Your task to perform on an android device: Show me popular videos on Youtube Image 0: 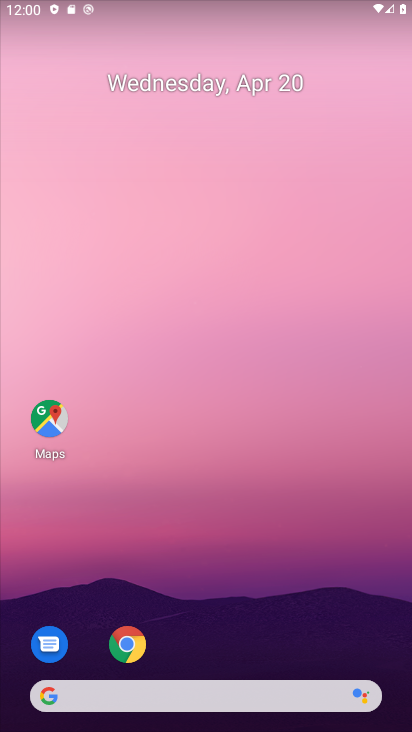
Step 0: drag from (310, 604) to (336, 5)
Your task to perform on an android device: Show me popular videos on Youtube Image 1: 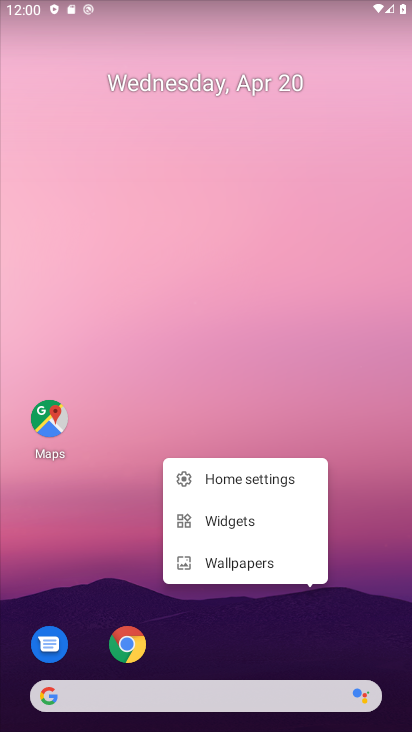
Step 1: drag from (319, 622) to (402, 25)
Your task to perform on an android device: Show me popular videos on Youtube Image 2: 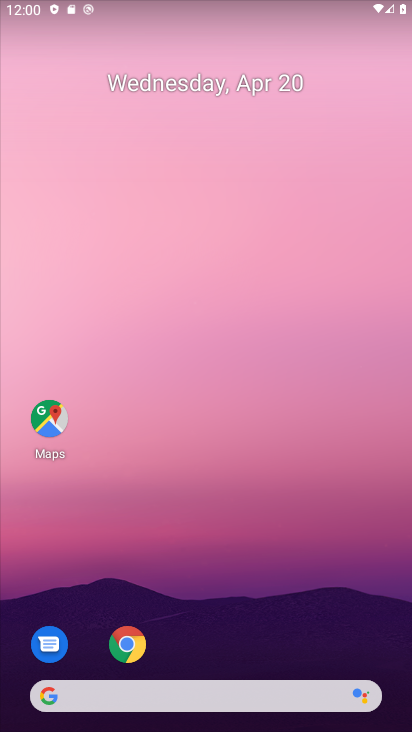
Step 2: drag from (214, 630) to (254, 109)
Your task to perform on an android device: Show me popular videos on Youtube Image 3: 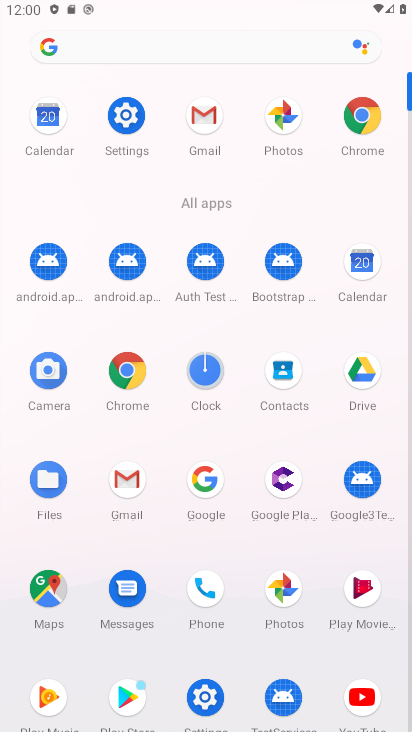
Step 3: click (356, 694)
Your task to perform on an android device: Show me popular videos on Youtube Image 4: 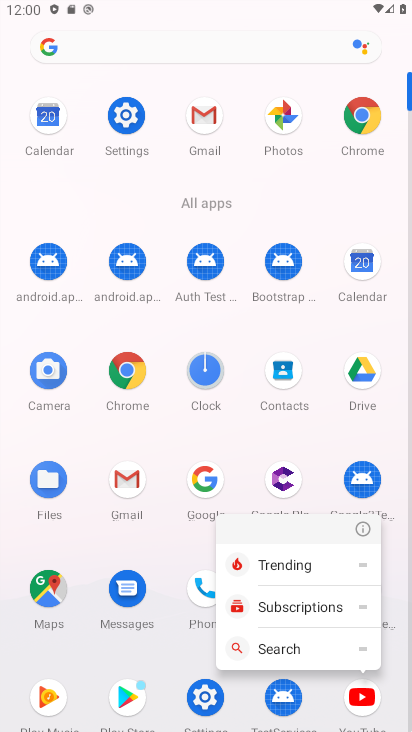
Step 4: click (368, 694)
Your task to perform on an android device: Show me popular videos on Youtube Image 5: 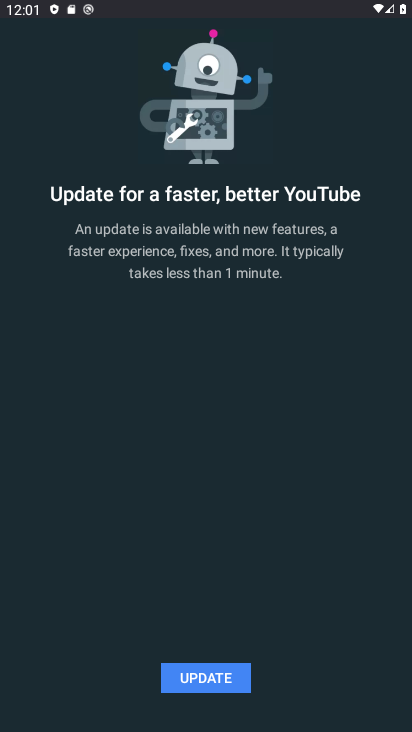
Step 5: click (243, 674)
Your task to perform on an android device: Show me popular videos on Youtube Image 6: 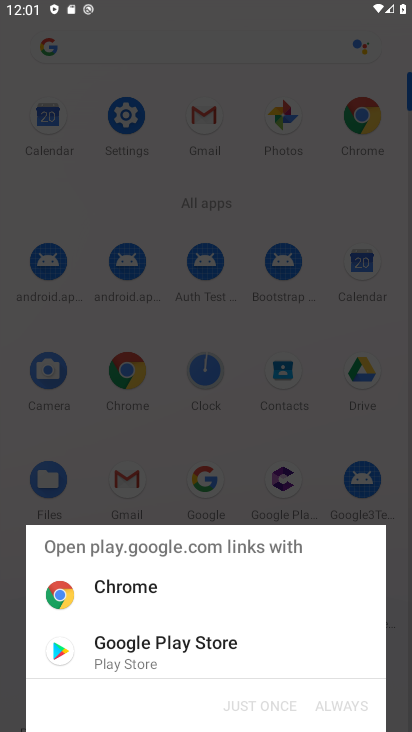
Step 6: click (241, 644)
Your task to perform on an android device: Show me popular videos on Youtube Image 7: 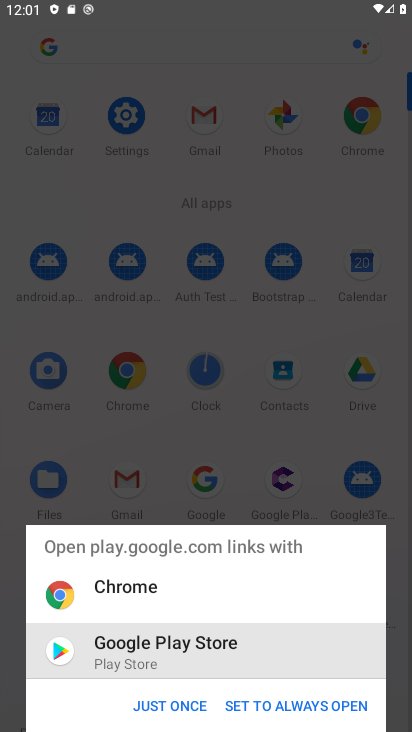
Step 7: click (170, 698)
Your task to perform on an android device: Show me popular videos on Youtube Image 8: 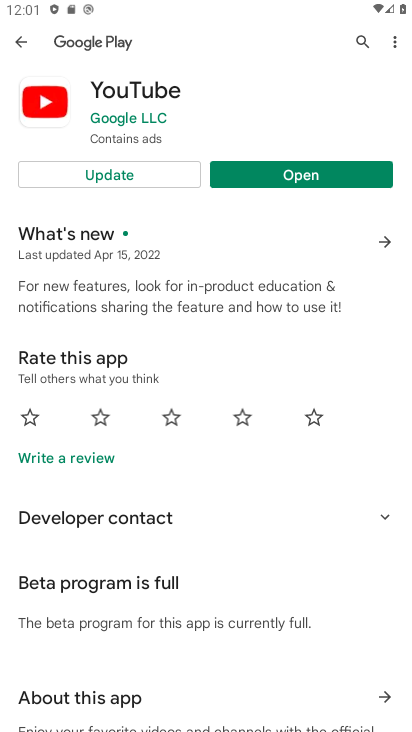
Step 8: click (48, 171)
Your task to perform on an android device: Show me popular videos on Youtube Image 9: 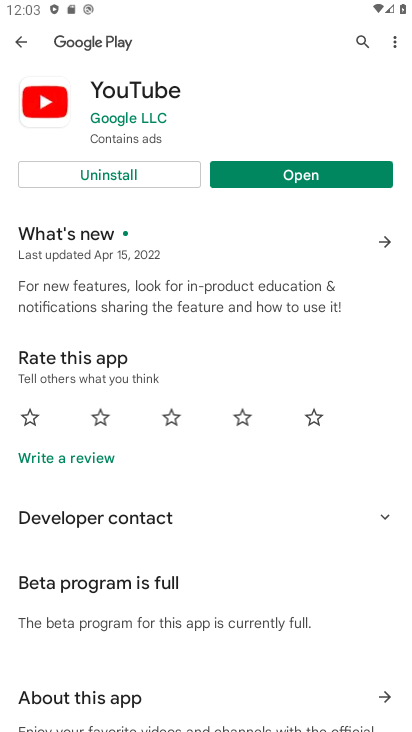
Step 9: click (255, 173)
Your task to perform on an android device: Show me popular videos on Youtube Image 10: 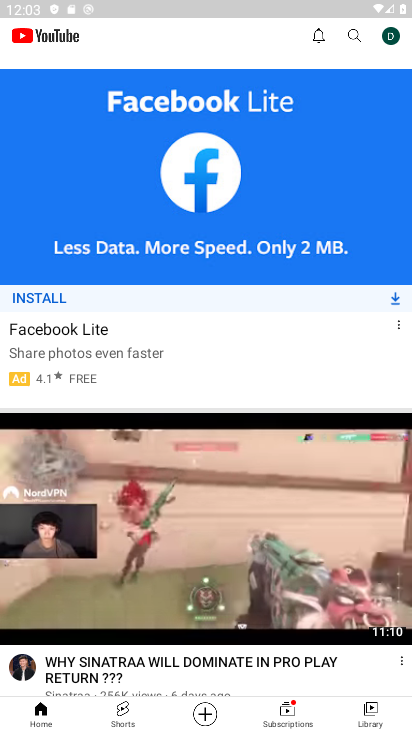
Step 10: click (351, 37)
Your task to perform on an android device: Show me popular videos on Youtube Image 11: 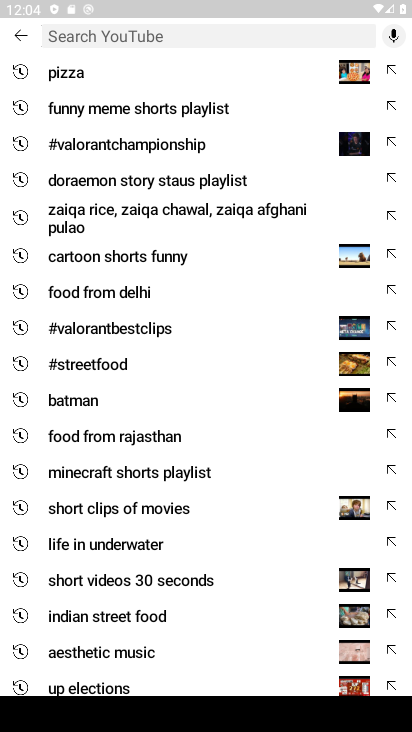
Step 11: type "popular videos"
Your task to perform on an android device: Show me popular videos on Youtube Image 12: 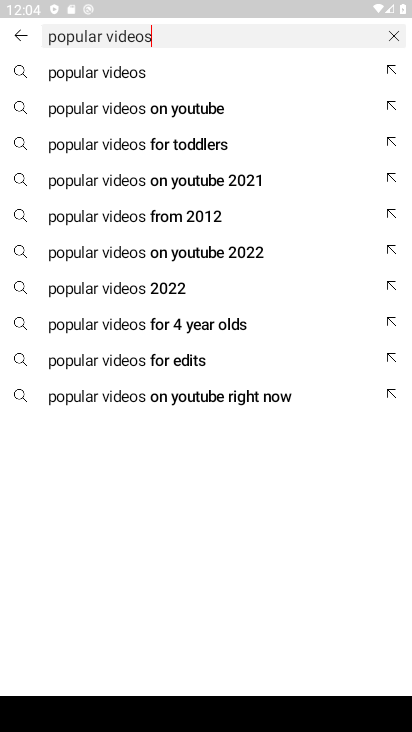
Step 12: click (195, 99)
Your task to perform on an android device: Show me popular videos on Youtube Image 13: 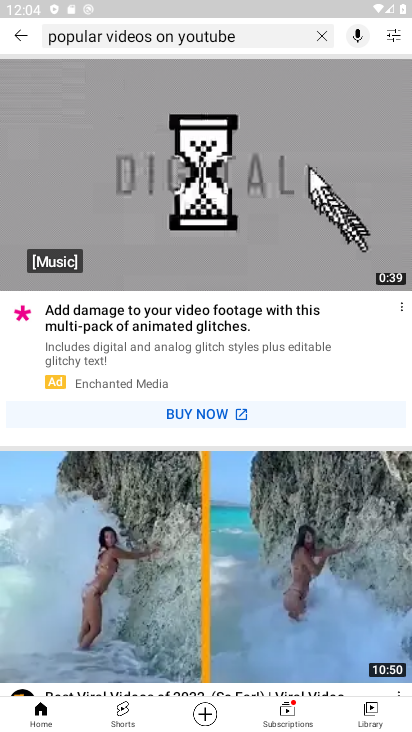
Step 13: task complete